Your task to perform on an android device: star an email in the gmail app Image 0: 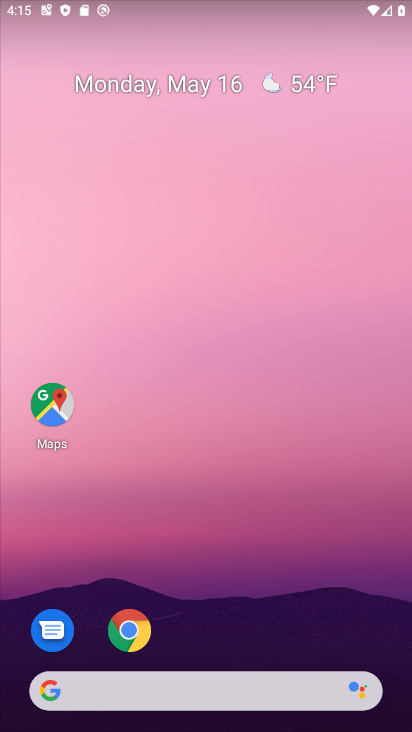
Step 0: drag from (222, 628) to (201, 90)
Your task to perform on an android device: star an email in the gmail app Image 1: 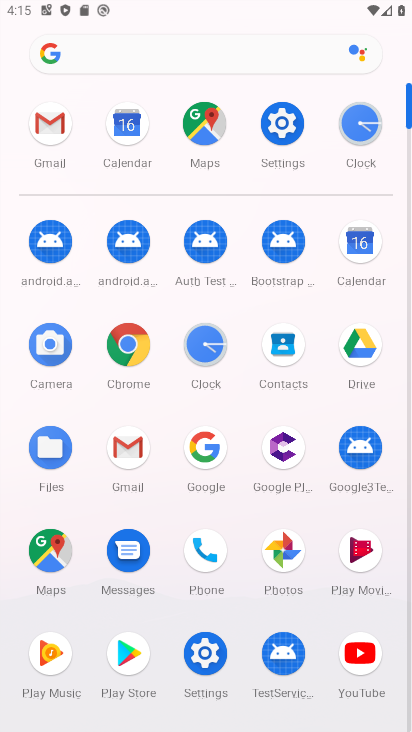
Step 1: click (51, 117)
Your task to perform on an android device: star an email in the gmail app Image 2: 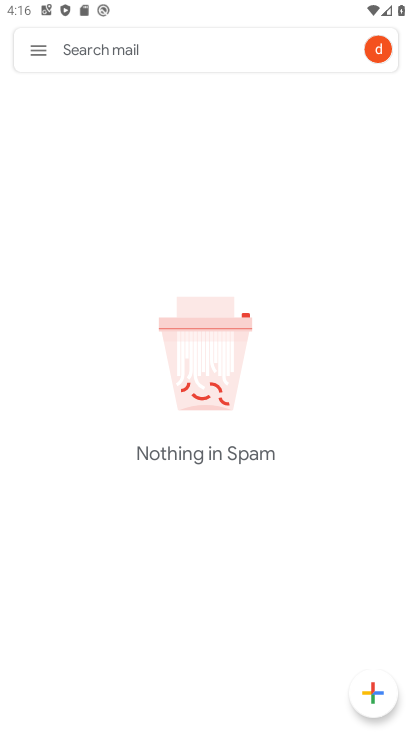
Step 2: click (47, 47)
Your task to perform on an android device: star an email in the gmail app Image 3: 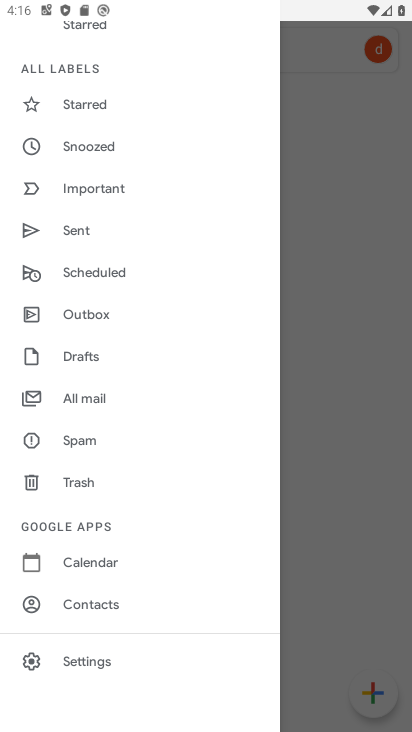
Step 3: click (152, 390)
Your task to perform on an android device: star an email in the gmail app Image 4: 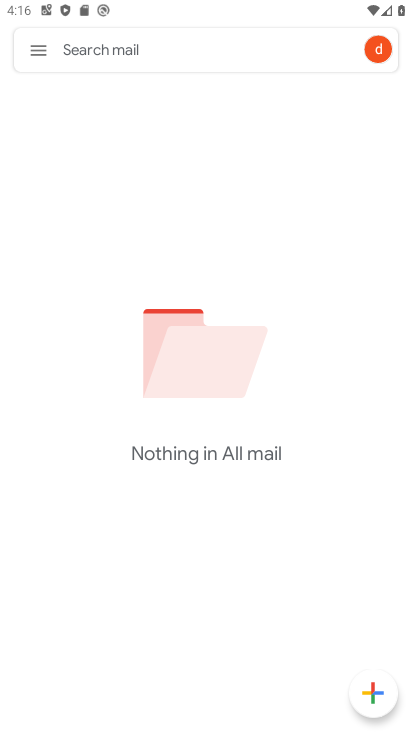
Step 4: task complete